Your task to perform on an android device: What is the recent news? Image 0: 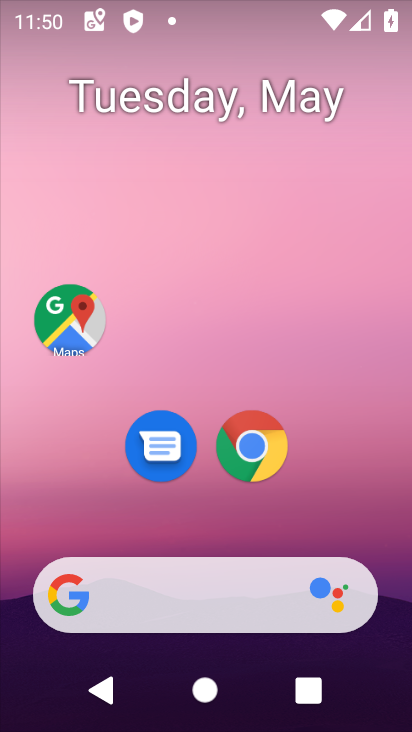
Step 0: drag from (3, 255) to (337, 251)
Your task to perform on an android device: What is the recent news? Image 1: 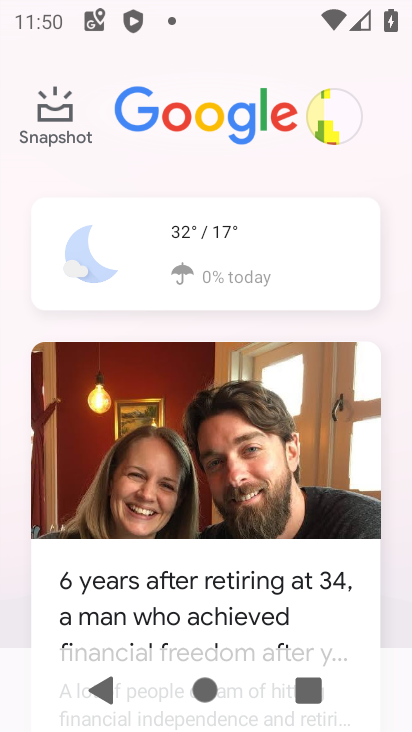
Step 1: task complete